Your task to perform on an android device: turn on priority inbox in the gmail app Image 0: 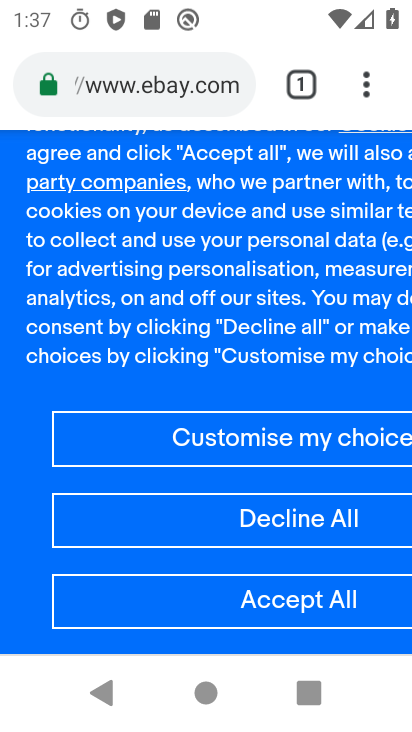
Step 0: press home button
Your task to perform on an android device: turn on priority inbox in the gmail app Image 1: 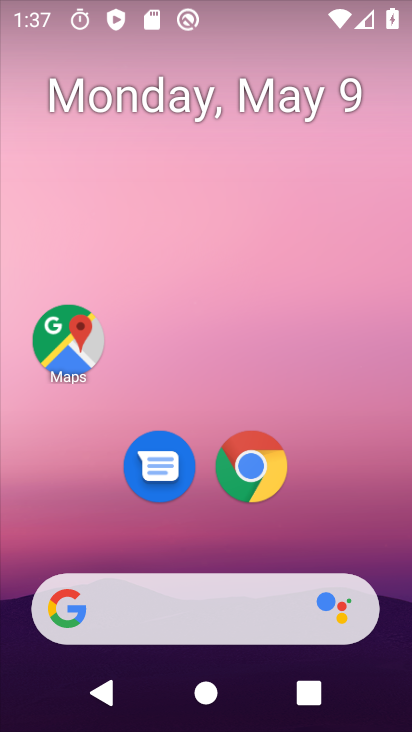
Step 1: drag from (239, 638) to (243, 314)
Your task to perform on an android device: turn on priority inbox in the gmail app Image 2: 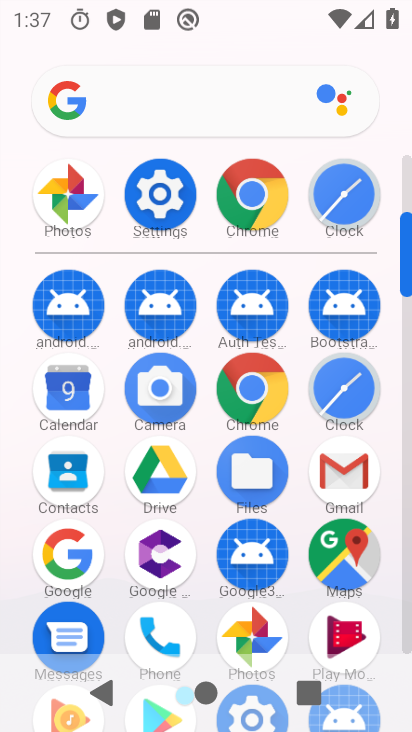
Step 2: click (336, 479)
Your task to perform on an android device: turn on priority inbox in the gmail app Image 3: 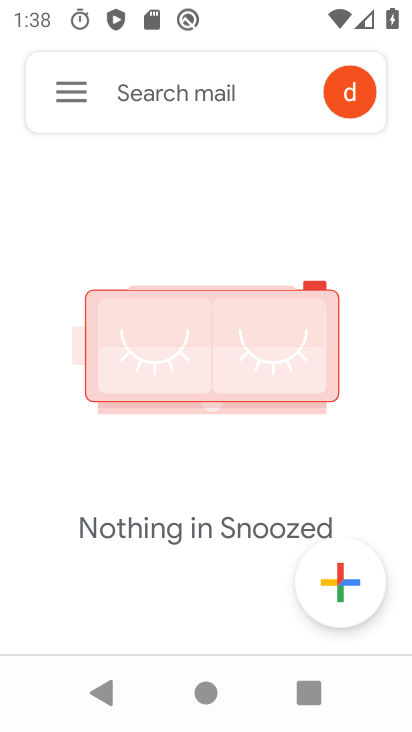
Step 3: click (67, 86)
Your task to perform on an android device: turn on priority inbox in the gmail app Image 4: 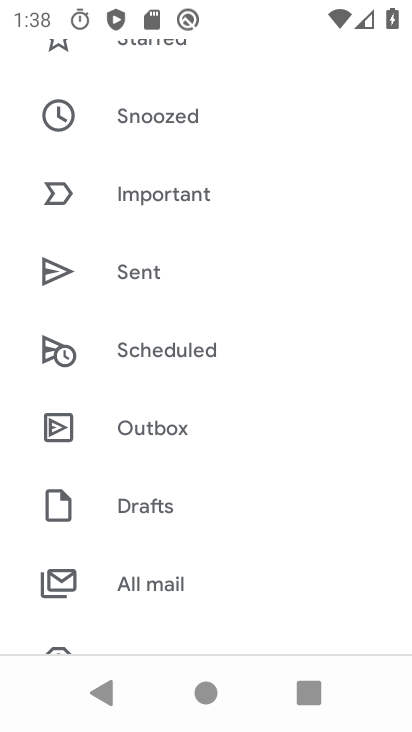
Step 4: drag from (200, 187) to (163, 399)
Your task to perform on an android device: turn on priority inbox in the gmail app Image 5: 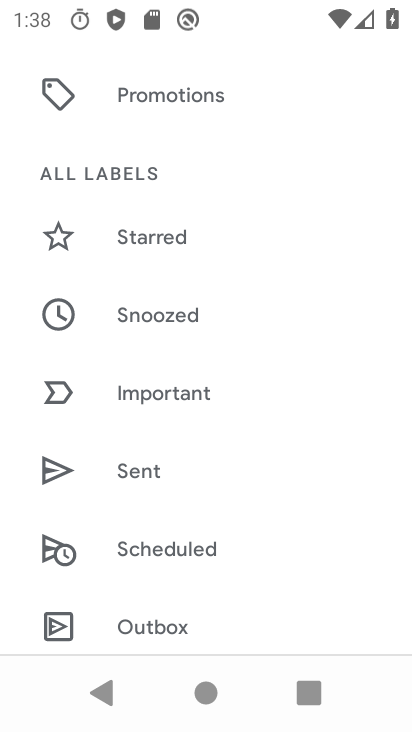
Step 5: drag from (173, 447) to (214, 0)
Your task to perform on an android device: turn on priority inbox in the gmail app Image 6: 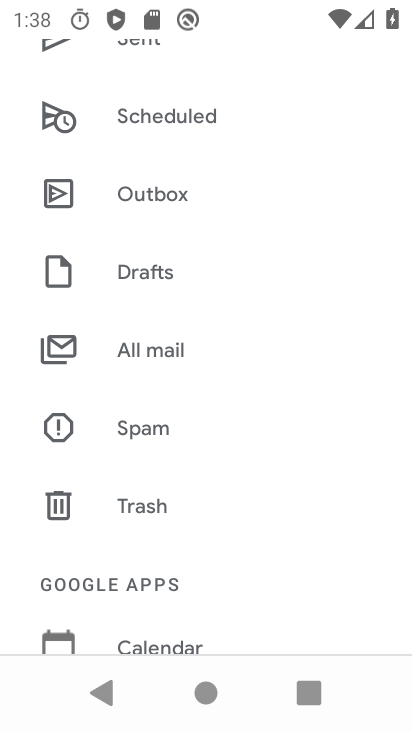
Step 6: drag from (214, 629) to (254, 1)
Your task to perform on an android device: turn on priority inbox in the gmail app Image 7: 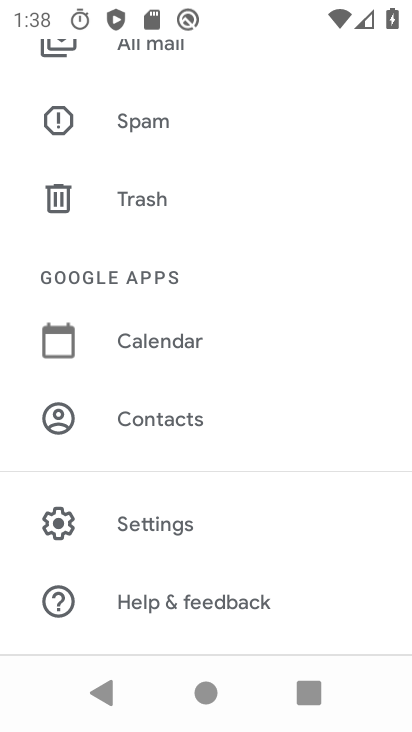
Step 7: click (181, 527)
Your task to perform on an android device: turn on priority inbox in the gmail app Image 8: 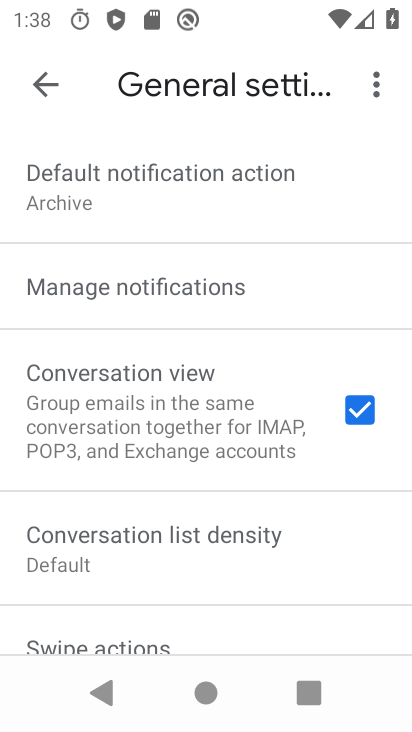
Step 8: click (53, 92)
Your task to perform on an android device: turn on priority inbox in the gmail app Image 9: 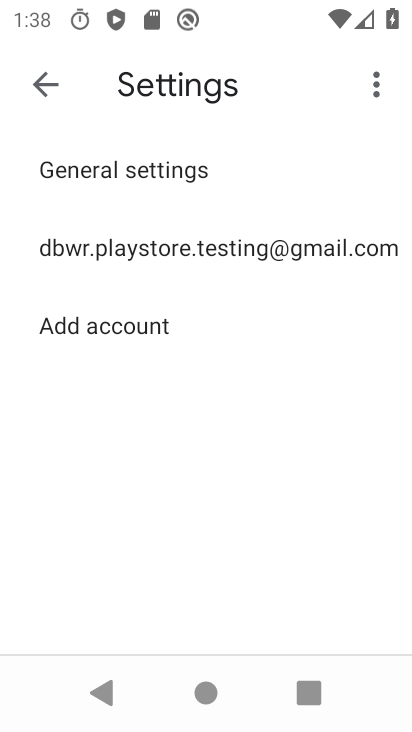
Step 9: click (182, 263)
Your task to perform on an android device: turn on priority inbox in the gmail app Image 10: 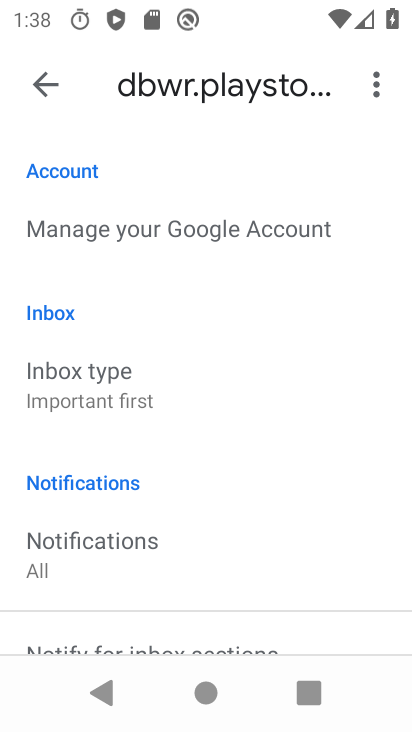
Step 10: click (153, 398)
Your task to perform on an android device: turn on priority inbox in the gmail app Image 11: 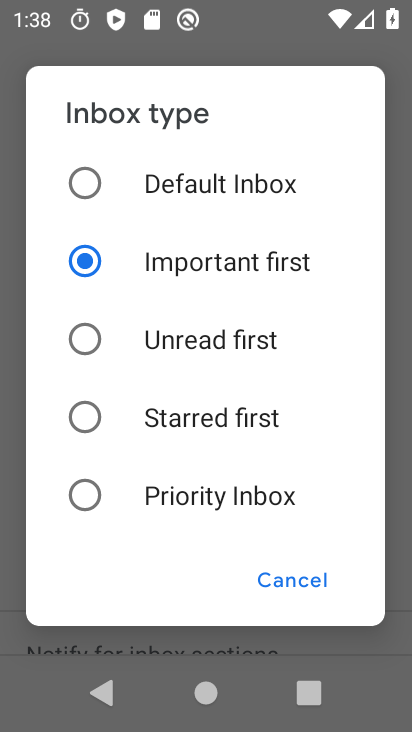
Step 11: click (137, 486)
Your task to perform on an android device: turn on priority inbox in the gmail app Image 12: 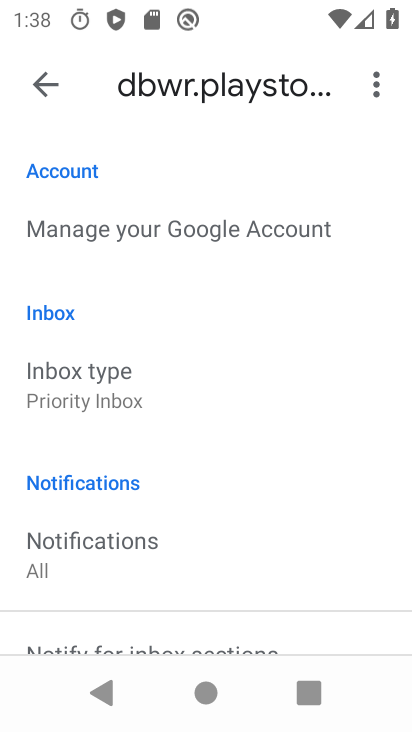
Step 12: task complete